Your task to perform on an android device: add a label to a message in the gmail app Image 0: 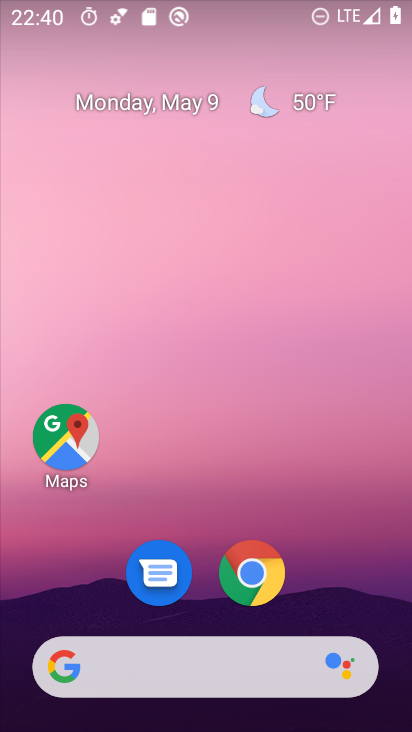
Step 0: drag from (350, 598) to (306, 159)
Your task to perform on an android device: add a label to a message in the gmail app Image 1: 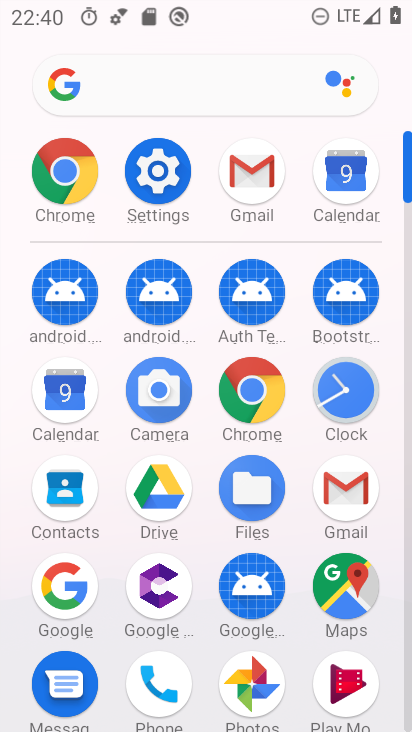
Step 1: click (261, 169)
Your task to perform on an android device: add a label to a message in the gmail app Image 2: 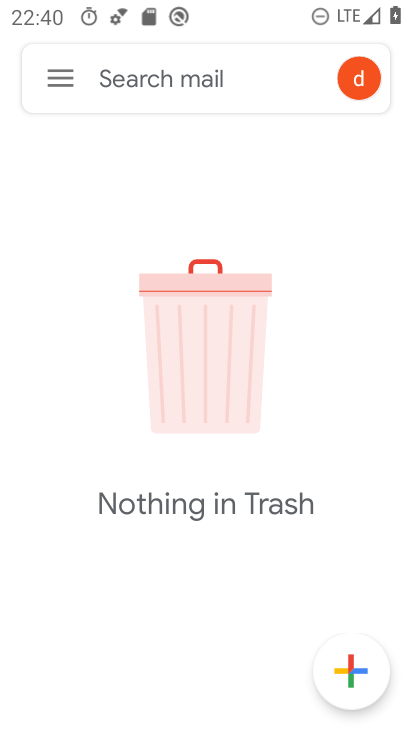
Step 2: click (54, 77)
Your task to perform on an android device: add a label to a message in the gmail app Image 3: 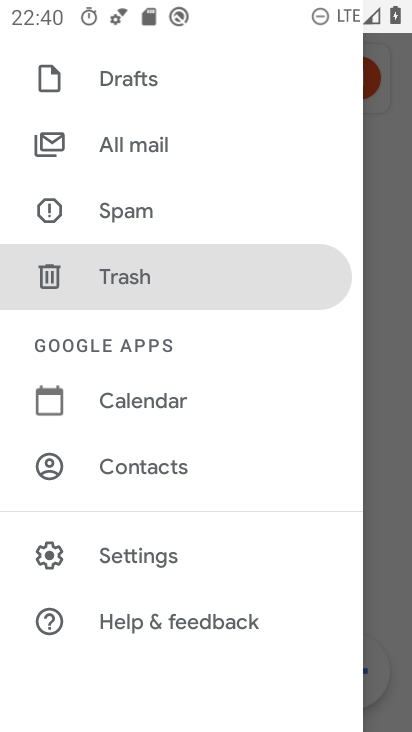
Step 3: click (191, 150)
Your task to perform on an android device: add a label to a message in the gmail app Image 4: 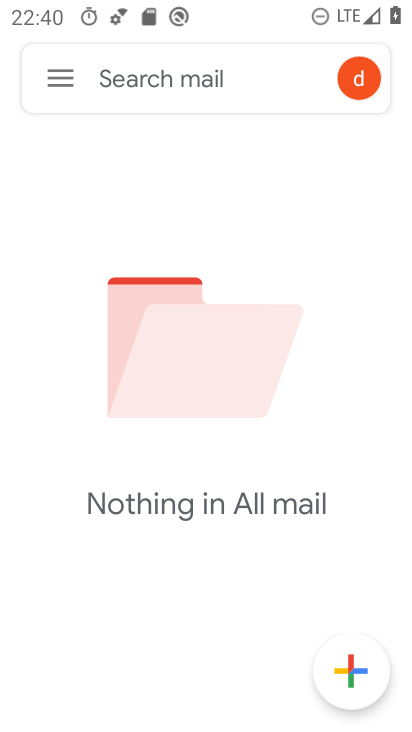
Step 4: task complete